Your task to perform on an android device: toggle notifications settings in the gmail app Image 0: 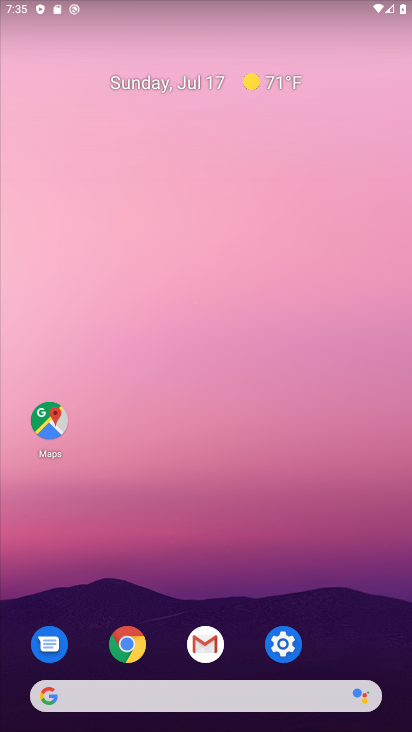
Step 0: click (220, 643)
Your task to perform on an android device: toggle notifications settings in the gmail app Image 1: 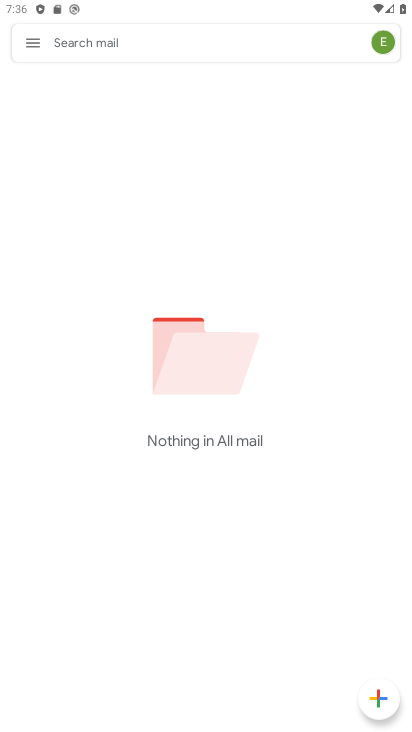
Step 1: click (34, 46)
Your task to perform on an android device: toggle notifications settings in the gmail app Image 2: 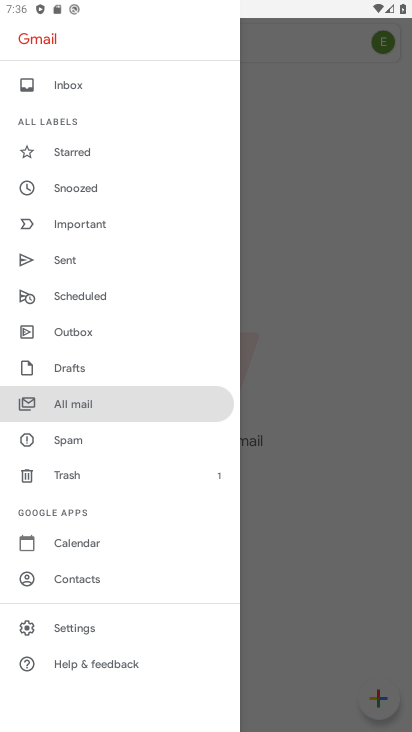
Step 2: click (68, 631)
Your task to perform on an android device: toggle notifications settings in the gmail app Image 3: 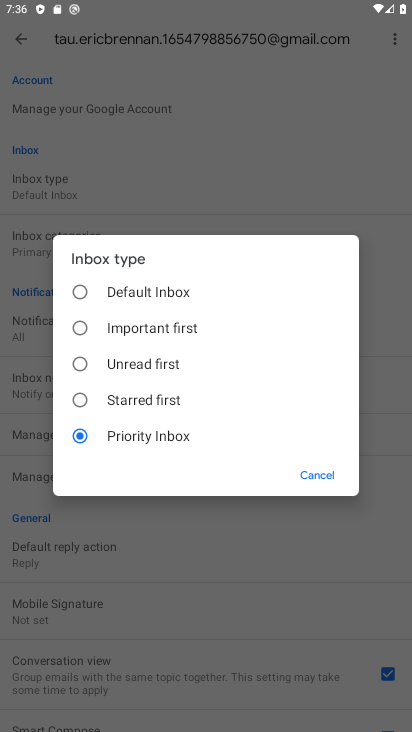
Step 3: click (315, 468)
Your task to perform on an android device: toggle notifications settings in the gmail app Image 4: 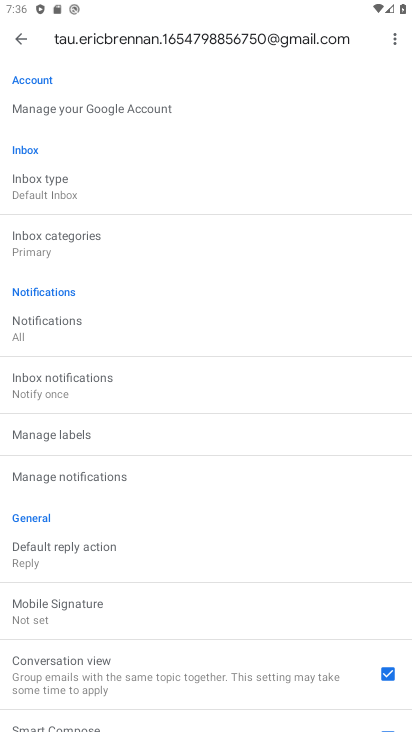
Step 4: click (67, 334)
Your task to perform on an android device: toggle notifications settings in the gmail app Image 5: 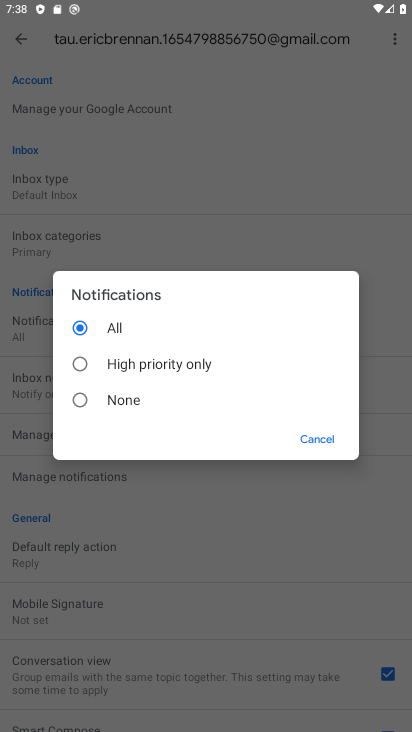
Step 5: task complete